Your task to perform on an android device: Open the map Image 0: 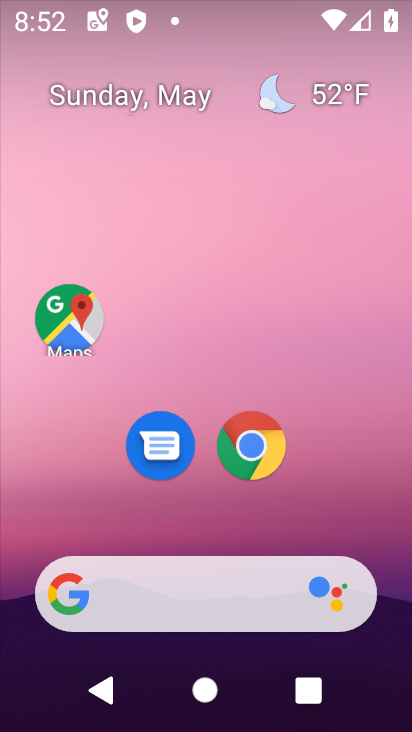
Step 0: drag from (327, 491) to (306, 51)
Your task to perform on an android device: Open the map Image 1: 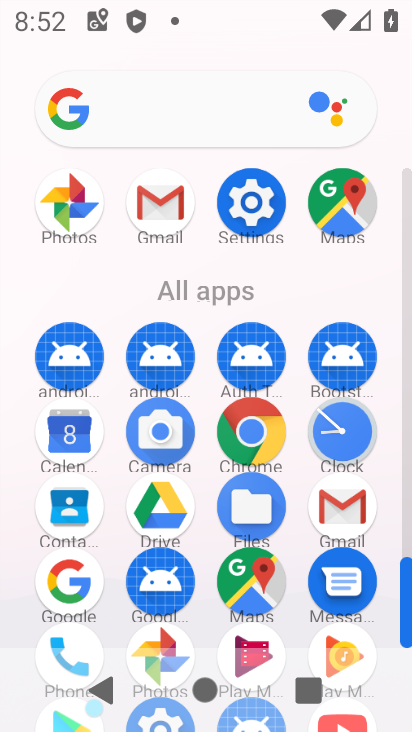
Step 1: click (331, 205)
Your task to perform on an android device: Open the map Image 2: 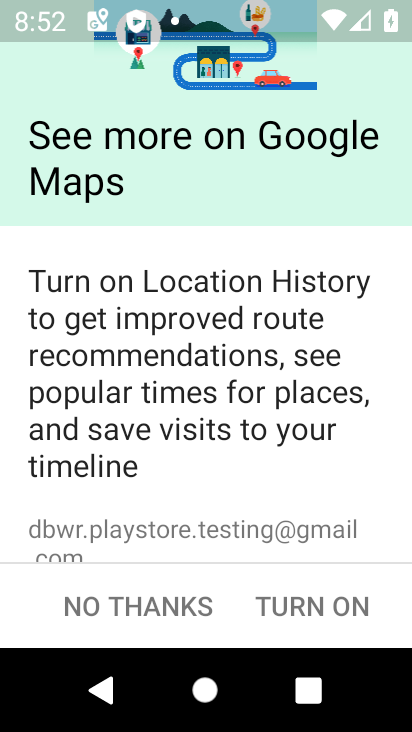
Step 2: click (276, 606)
Your task to perform on an android device: Open the map Image 3: 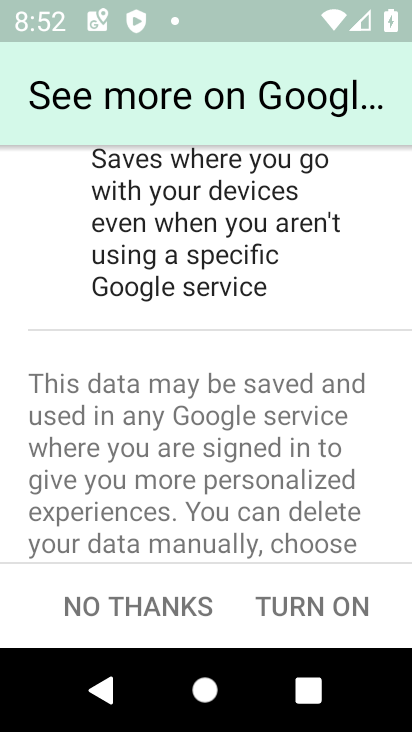
Step 3: click (319, 599)
Your task to perform on an android device: Open the map Image 4: 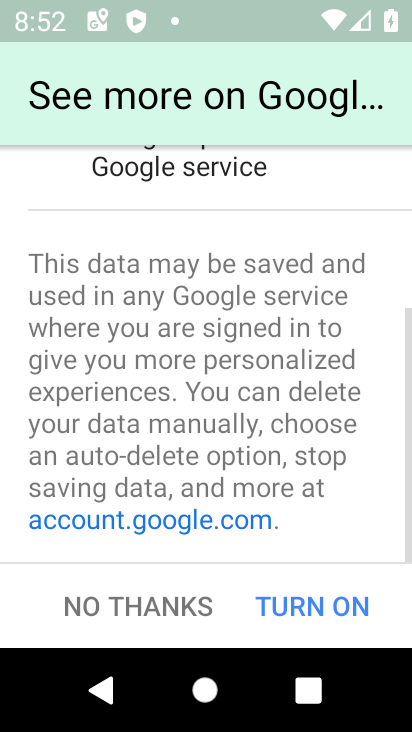
Step 4: drag from (290, 453) to (283, 177)
Your task to perform on an android device: Open the map Image 5: 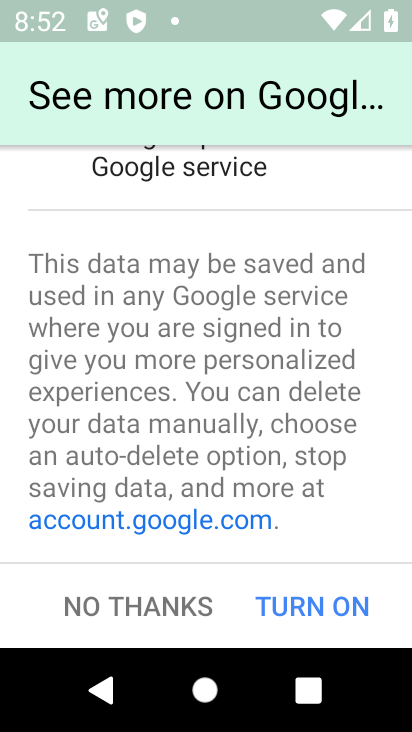
Step 5: click (294, 601)
Your task to perform on an android device: Open the map Image 6: 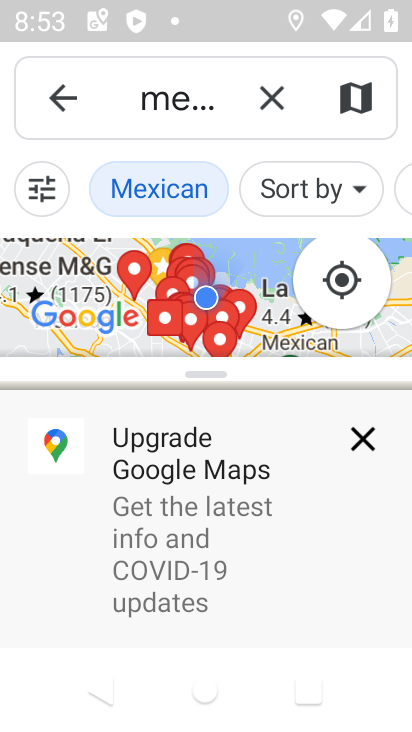
Step 6: click (367, 448)
Your task to perform on an android device: Open the map Image 7: 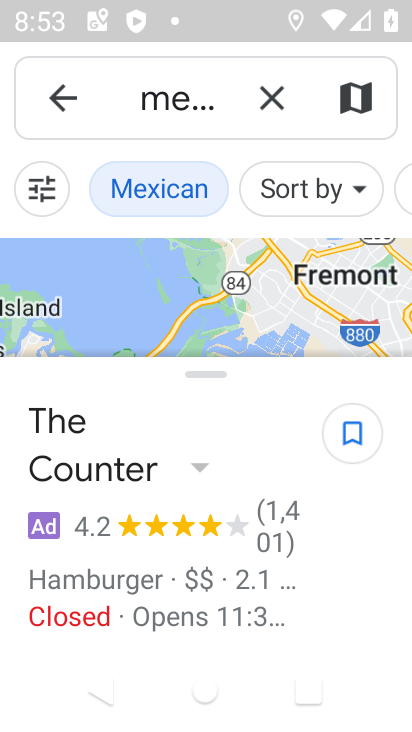
Step 7: task complete